Your task to perform on an android device: Go to CNN.com Image 0: 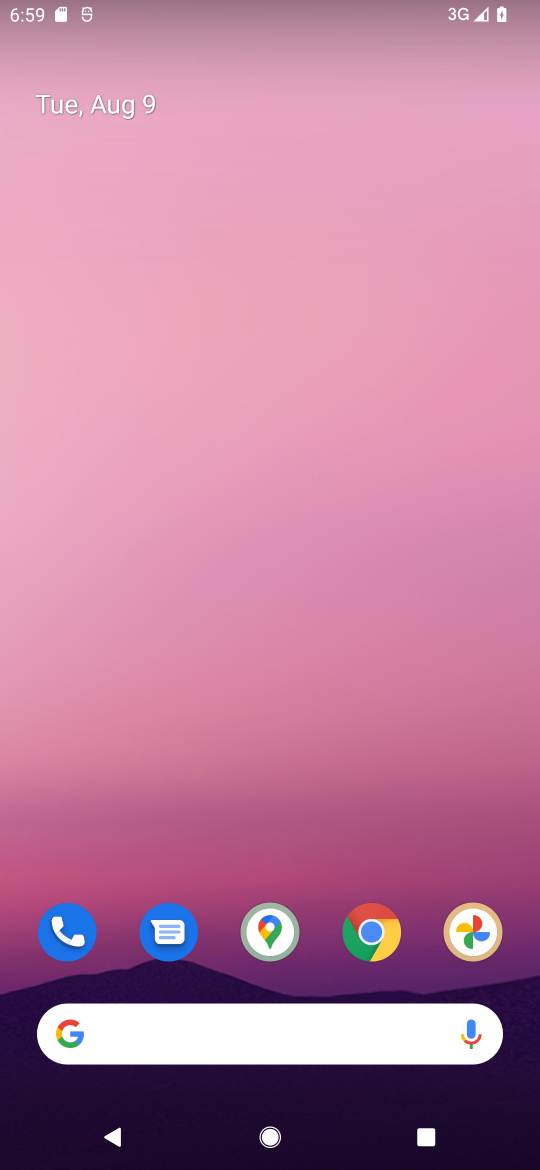
Step 0: drag from (250, 843) to (287, 403)
Your task to perform on an android device: Go to CNN.com Image 1: 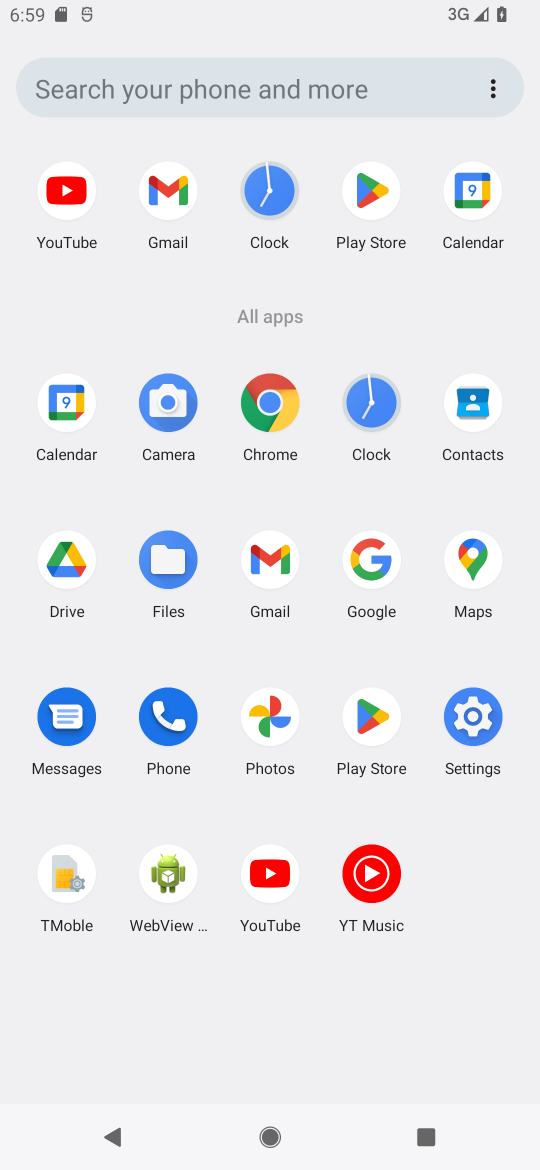
Step 1: click (293, 417)
Your task to perform on an android device: Go to CNN.com Image 2: 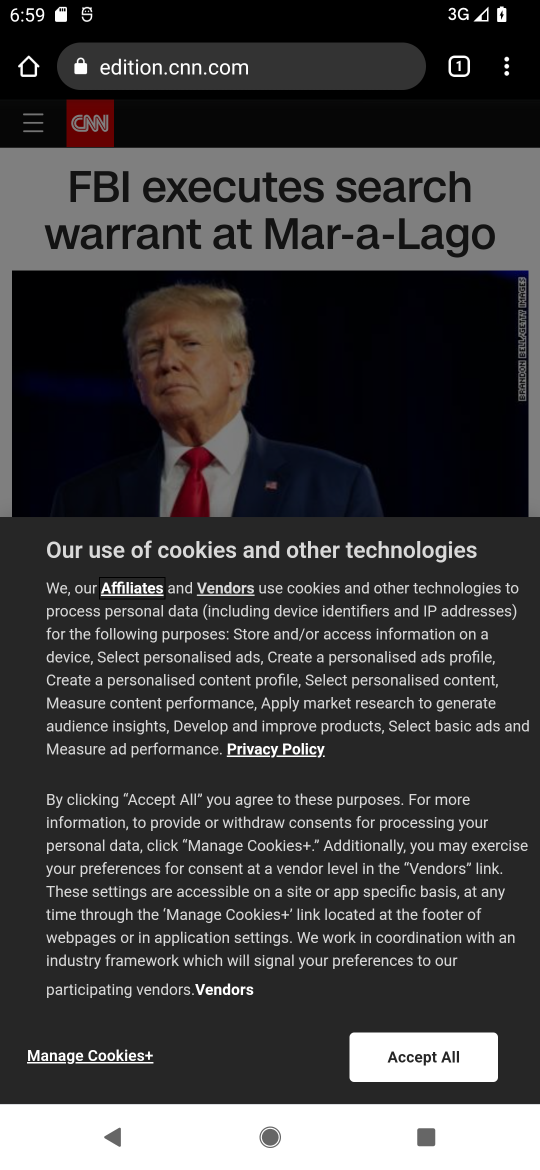
Step 2: task complete